Your task to perform on an android device: empty trash in google photos Image 0: 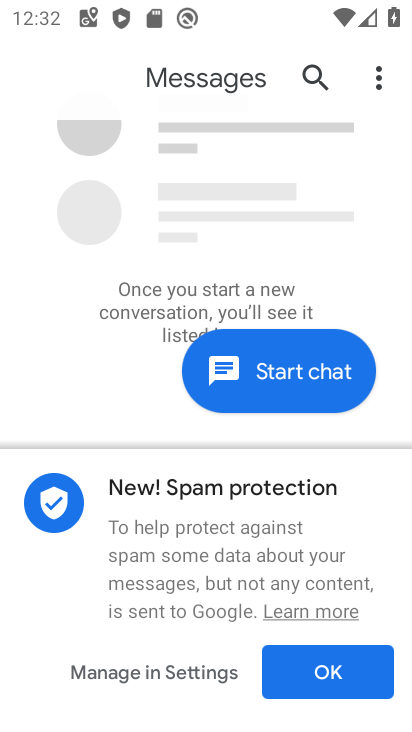
Step 0: press home button
Your task to perform on an android device: empty trash in google photos Image 1: 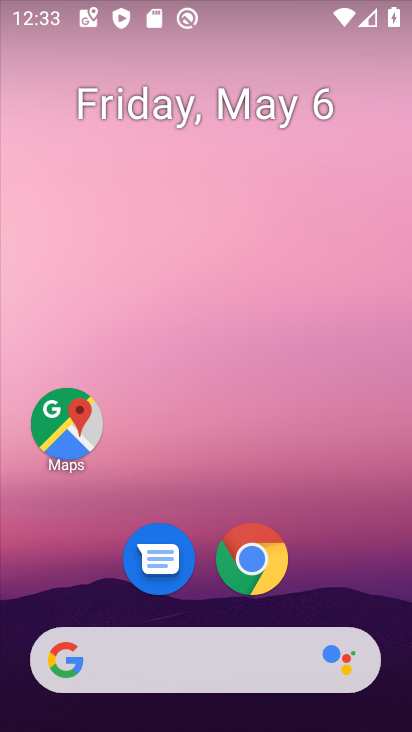
Step 1: drag from (320, 596) to (306, 156)
Your task to perform on an android device: empty trash in google photos Image 2: 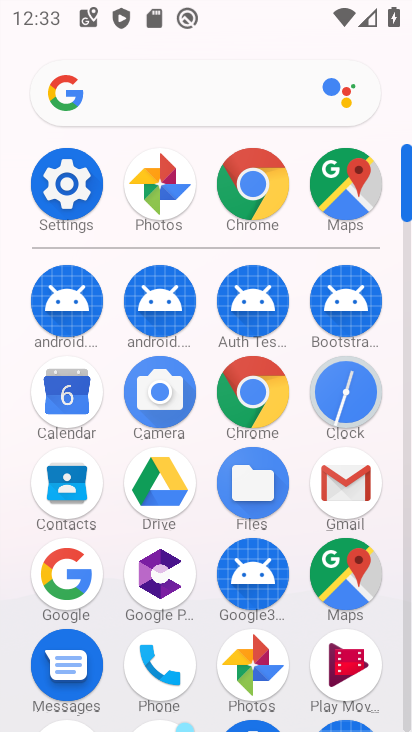
Step 2: click (252, 665)
Your task to perform on an android device: empty trash in google photos Image 3: 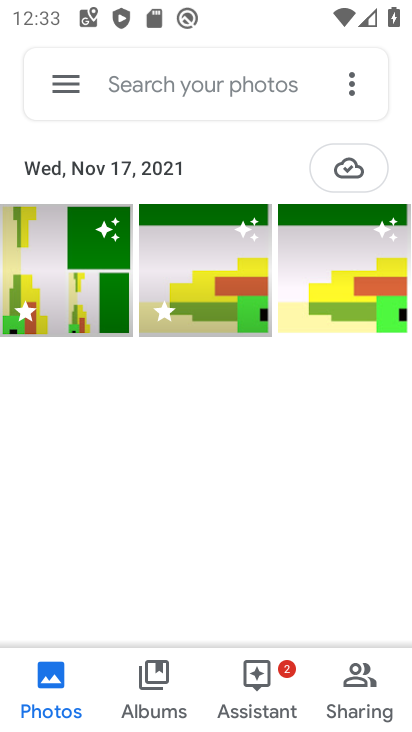
Step 3: click (51, 87)
Your task to perform on an android device: empty trash in google photos Image 4: 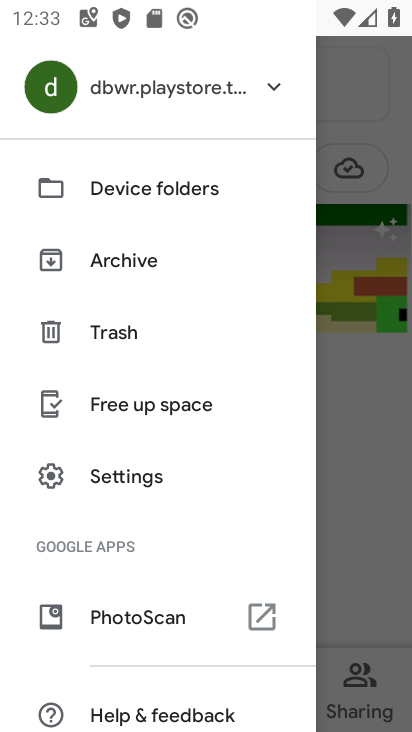
Step 4: click (123, 331)
Your task to perform on an android device: empty trash in google photos Image 5: 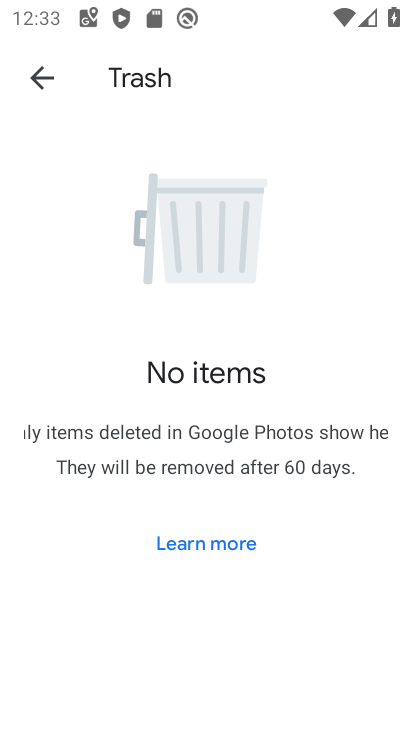
Step 5: task complete